Your task to perform on an android device: Search for vegetarian restaurants on Maps Image 0: 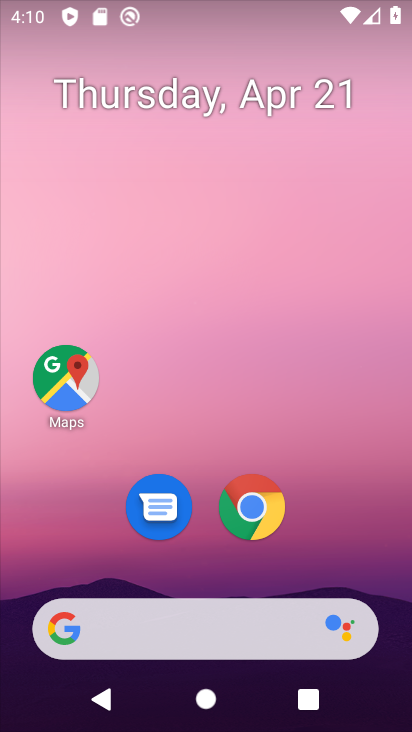
Step 0: click (50, 389)
Your task to perform on an android device: Search for vegetarian restaurants on Maps Image 1: 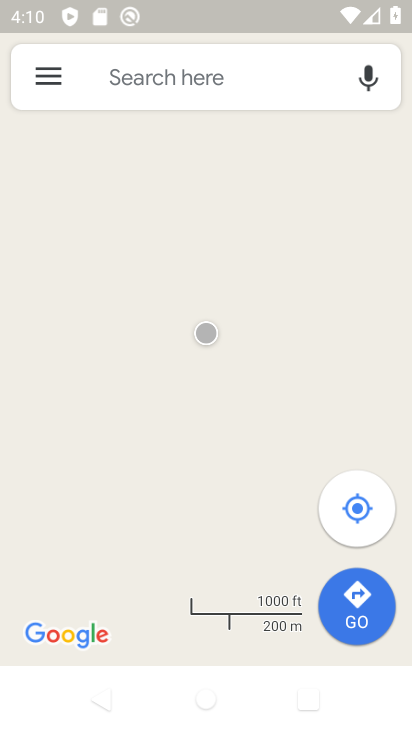
Step 1: click (170, 86)
Your task to perform on an android device: Search for vegetarian restaurants on Maps Image 2: 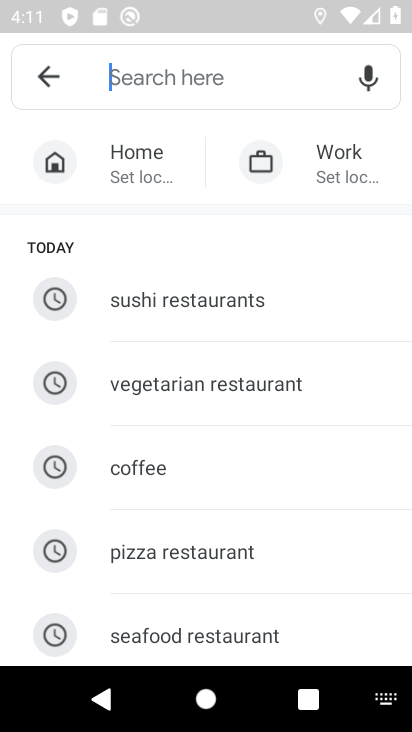
Step 2: type "veg"
Your task to perform on an android device: Search for vegetarian restaurants on Maps Image 3: 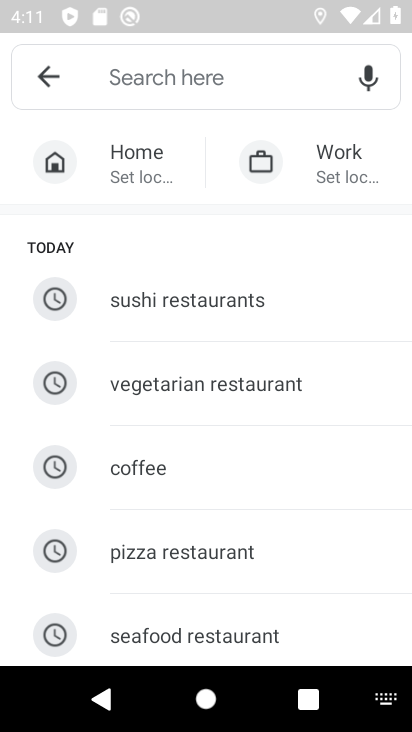
Step 3: click (231, 389)
Your task to perform on an android device: Search for vegetarian restaurants on Maps Image 4: 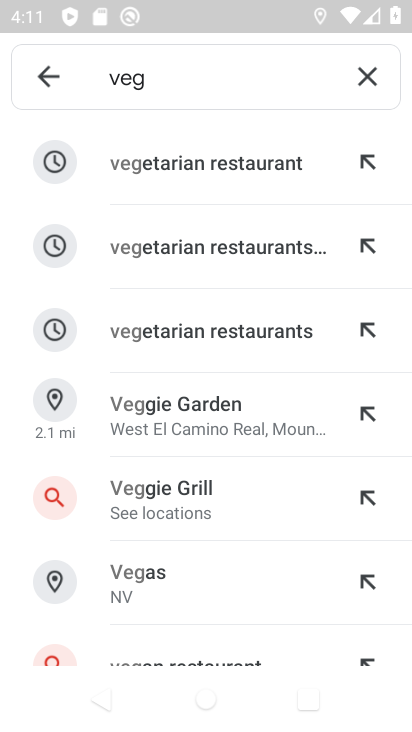
Step 4: click (188, 174)
Your task to perform on an android device: Search for vegetarian restaurants on Maps Image 5: 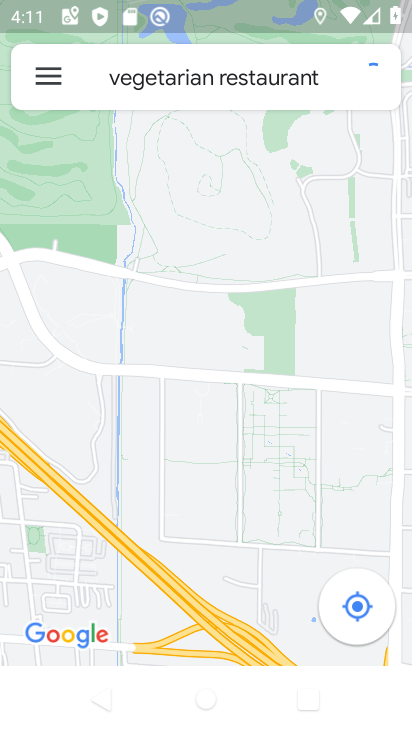
Step 5: task complete